Your task to perform on an android device: Show me popular games on the Play Store Image 0: 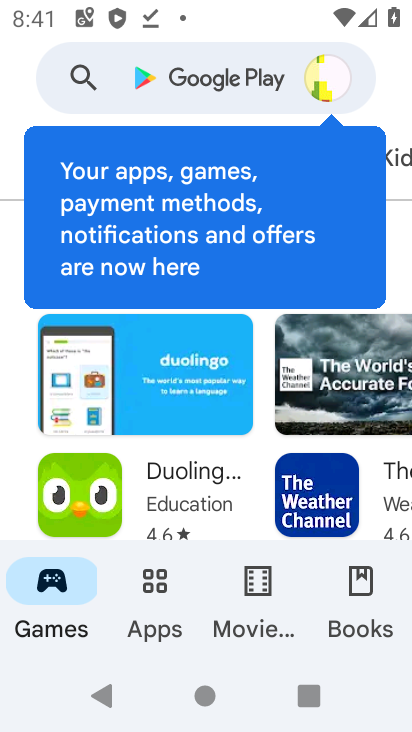
Step 0: press back button
Your task to perform on an android device: Show me popular games on the Play Store Image 1: 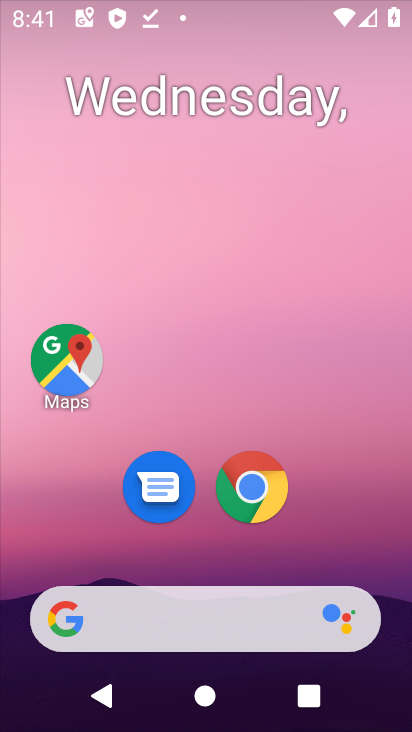
Step 1: press back button
Your task to perform on an android device: Show me popular games on the Play Store Image 2: 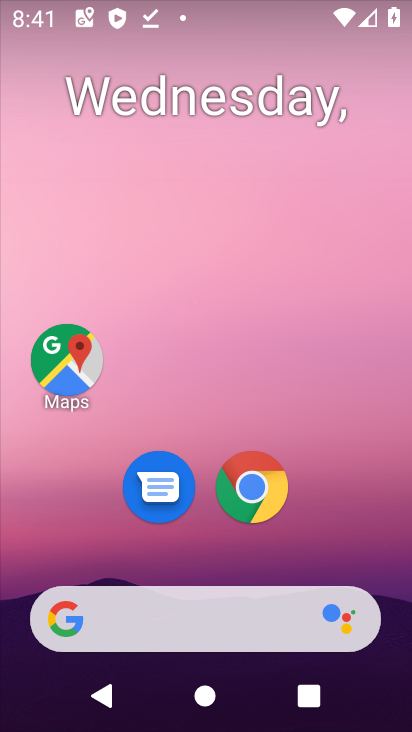
Step 2: drag from (251, 719) to (147, 182)
Your task to perform on an android device: Show me popular games on the Play Store Image 3: 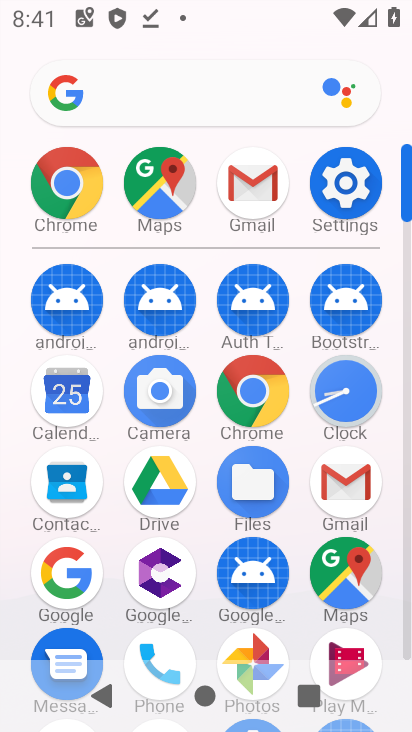
Step 3: drag from (204, 565) to (208, 234)
Your task to perform on an android device: Show me popular games on the Play Store Image 4: 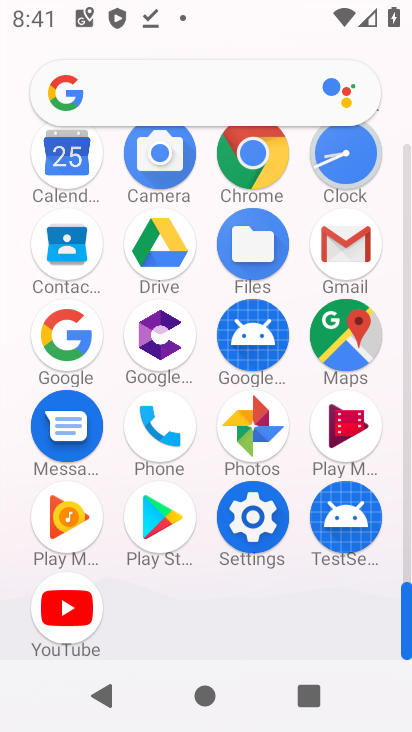
Step 4: drag from (168, 549) to (168, 276)
Your task to perform on an android device: Show me popular games on the Play Store Image 5: 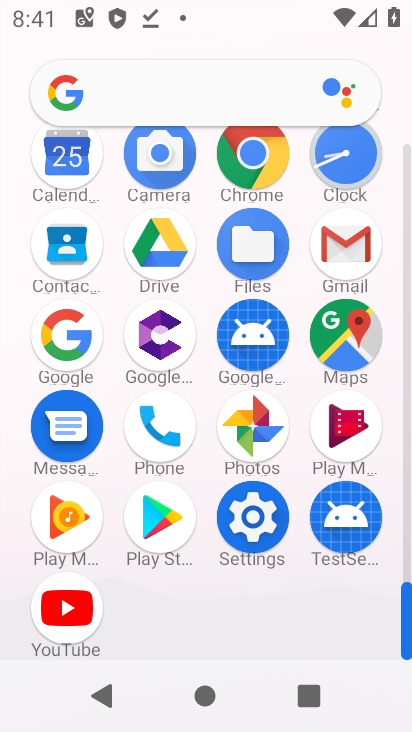
Step 5: click (167, 514)
Your task to perform on an android device: Show me popular games on the Play Store Image 6: 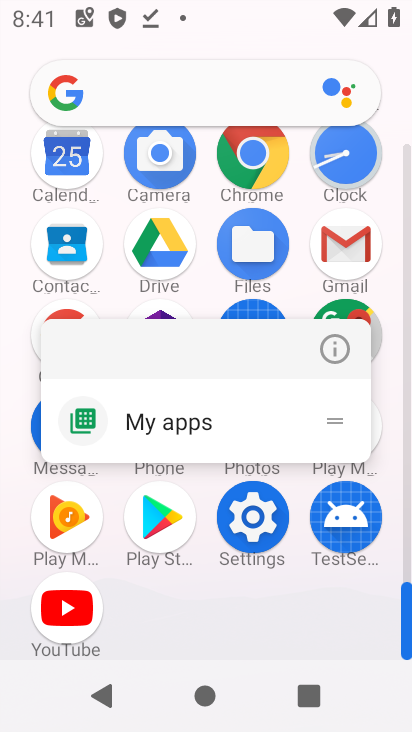
Step 6: click (161, 513)
Your task to perform on an android device: Show me popular games on the Play Store Image 7: 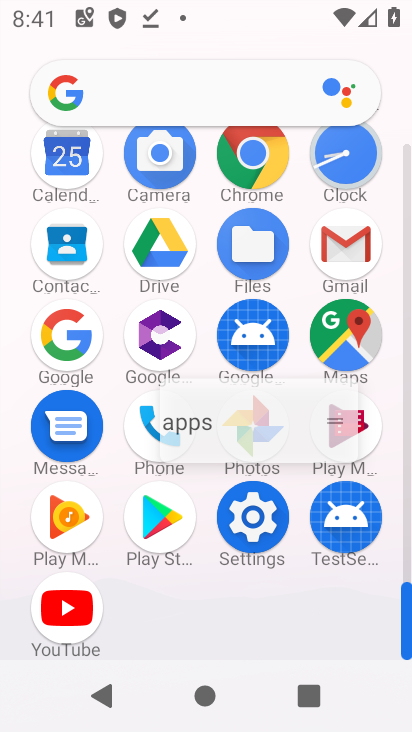
Step 7: click (165, 513)
Your task to perform on an android device: Show me popular games on the Play Store Image 8: 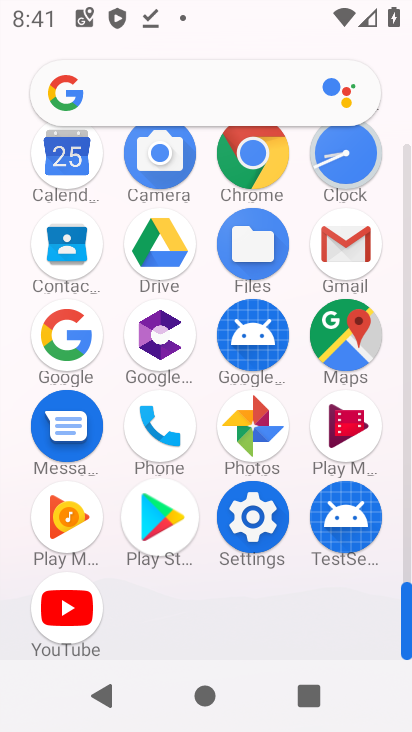
Step 8: click (170, 509)
Your task to perform on an android device: Show me popular games on the Play Store Image 9: 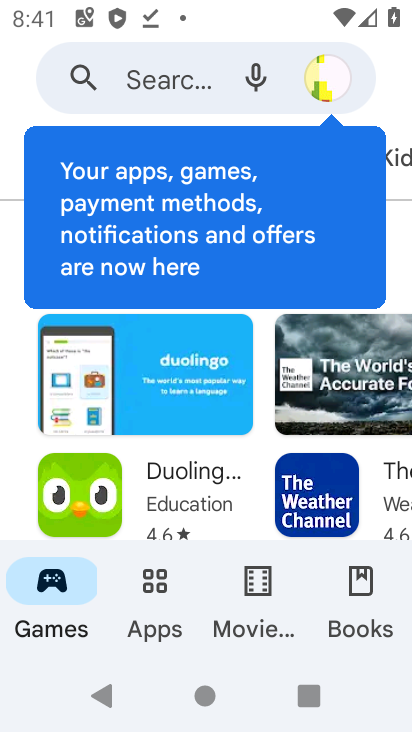
Step 9: press back button
Your task to perform on an android device: Show me popular games on the Play Store Image 10: 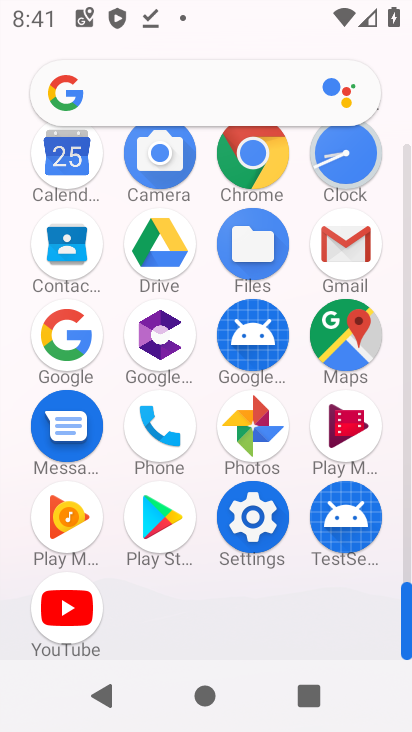
Step 10: click (154, 527)
Your task to perform on an android device: Show me popular games on the Play Store Image 11: 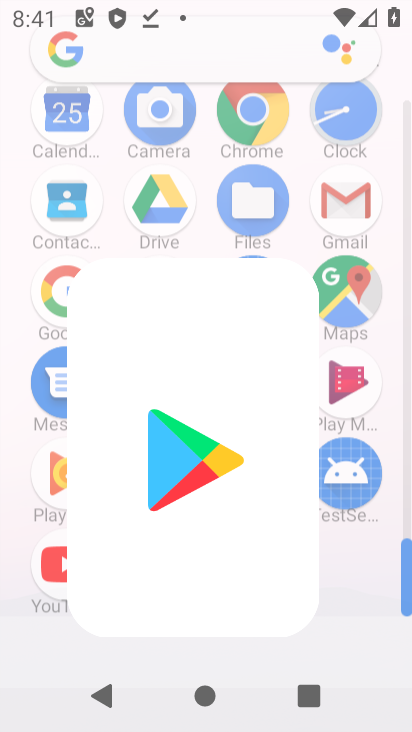
Step 11: click (154, 525)
Your task to perform on an android device: Show me popular games on the Play Store Image 12: 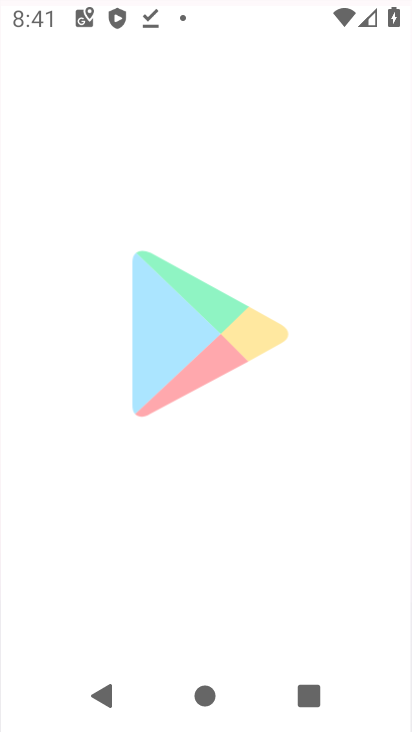
Step 12: click (154, 525)
Your task to perform on an android device: Show me popular games on the Play Store Image 13: 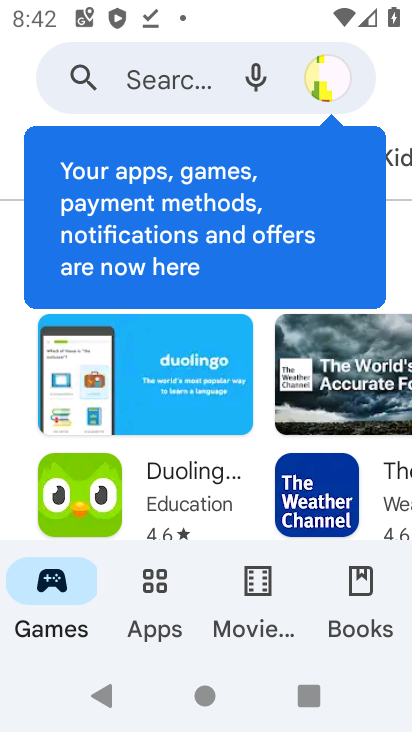
Step 13: click (136, 74)
Your task to perform on an android device: Show me popular games on the Play Store Image 14: 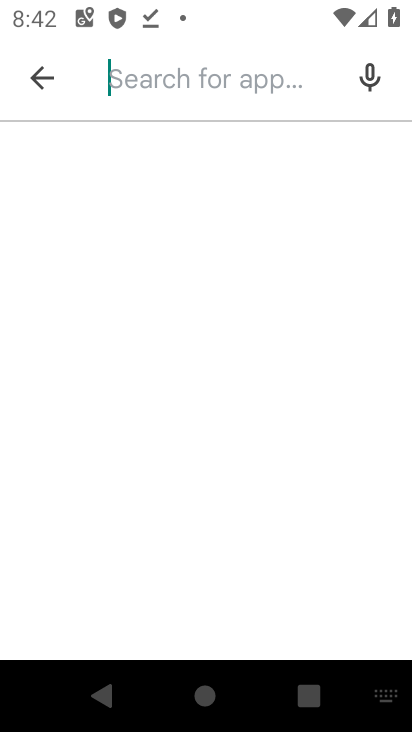
Step 14: type "popular games"
Your task to perform on an android device: Show me popular games on the Play Store Image 15: 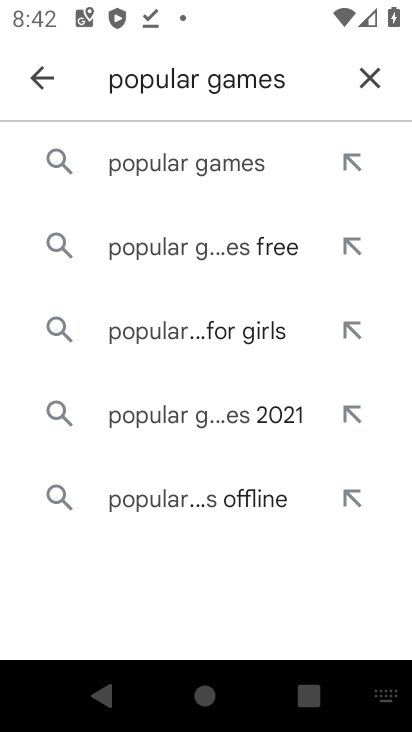
Step 15: click (201, 163)
Your task to perform on an android device: Show me popular games on the Play Store Image 16: 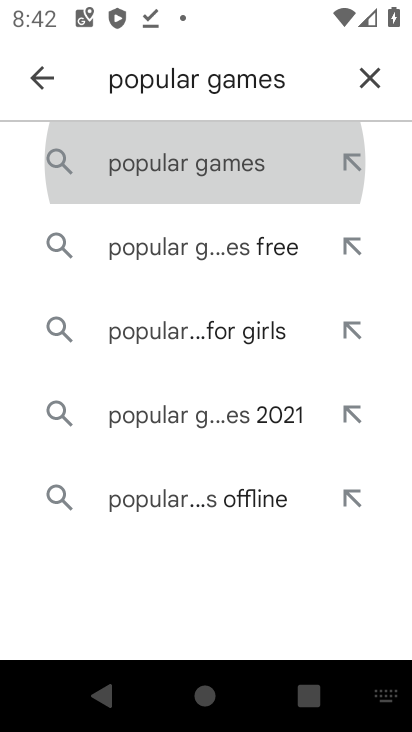
Step 16: click (202, 164)
Your task to perform on an android device: Show me popular games on the Play Store Image 17: 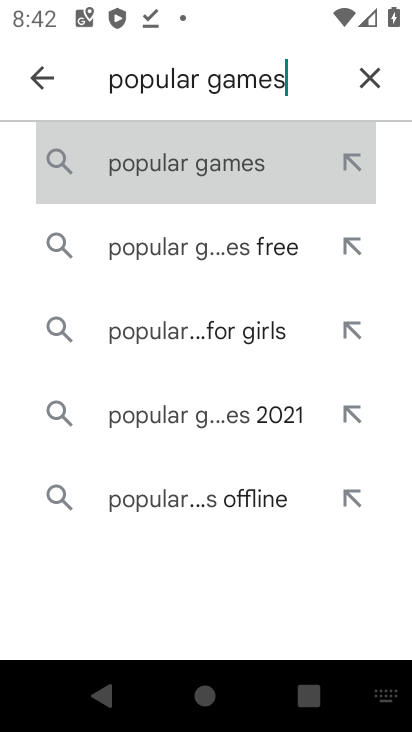
Step 17: click (210, 179)
Your task to perform on an android device: Show me popular games on the Play Store Image 18: 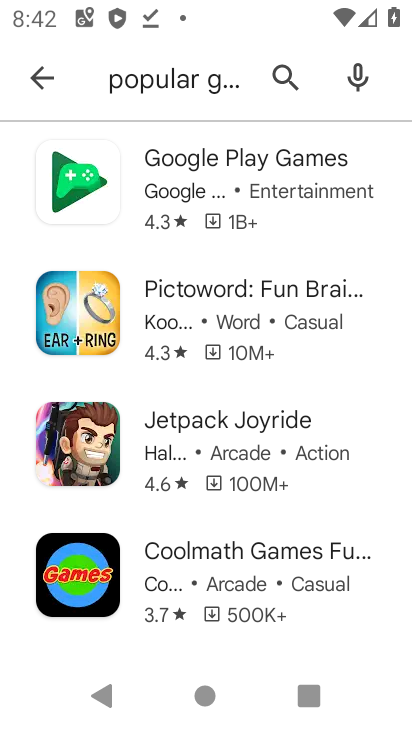
Step 18: task complete